Your task to perform on an android device: Open calendar and show me the fourth week of next month Image 0: 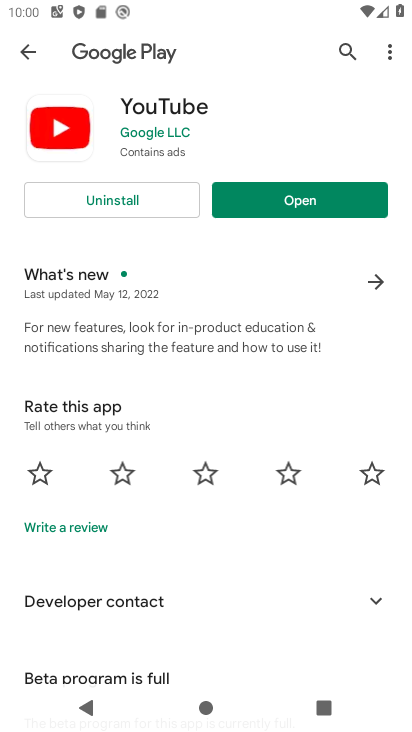
Step 0: press home button
Your task to perform on an android device: Open calendar and show me the fourth week of next month Image 1: 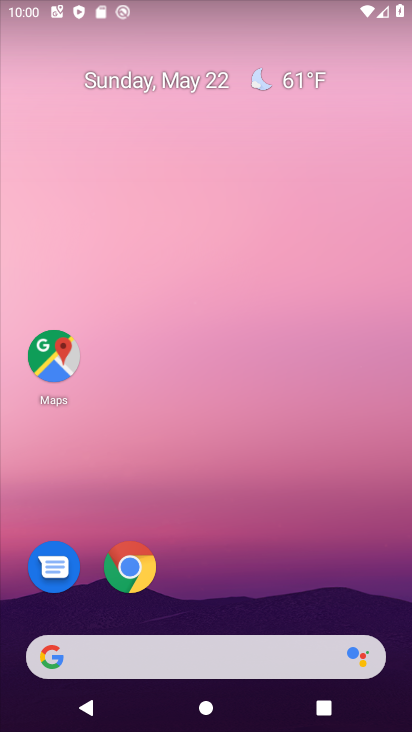
Step 1: drag from (215, 641) to (147, 0)
Your task to perform on an android device: Open calendar and show me the fourth week of next month Image 2: 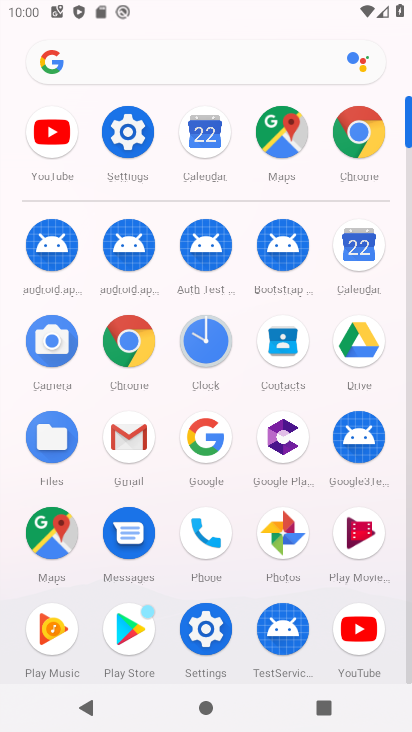
Step 2: click (366, 248)
Your task to perform on an android device: Open calendar and show me the fourth week of next month Image 3: 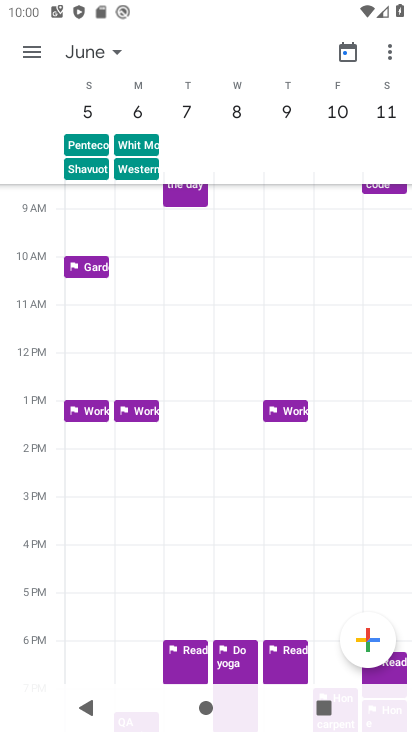
Step 3: task complete